Your task to perform on an android device: Go to display settings Image 0: 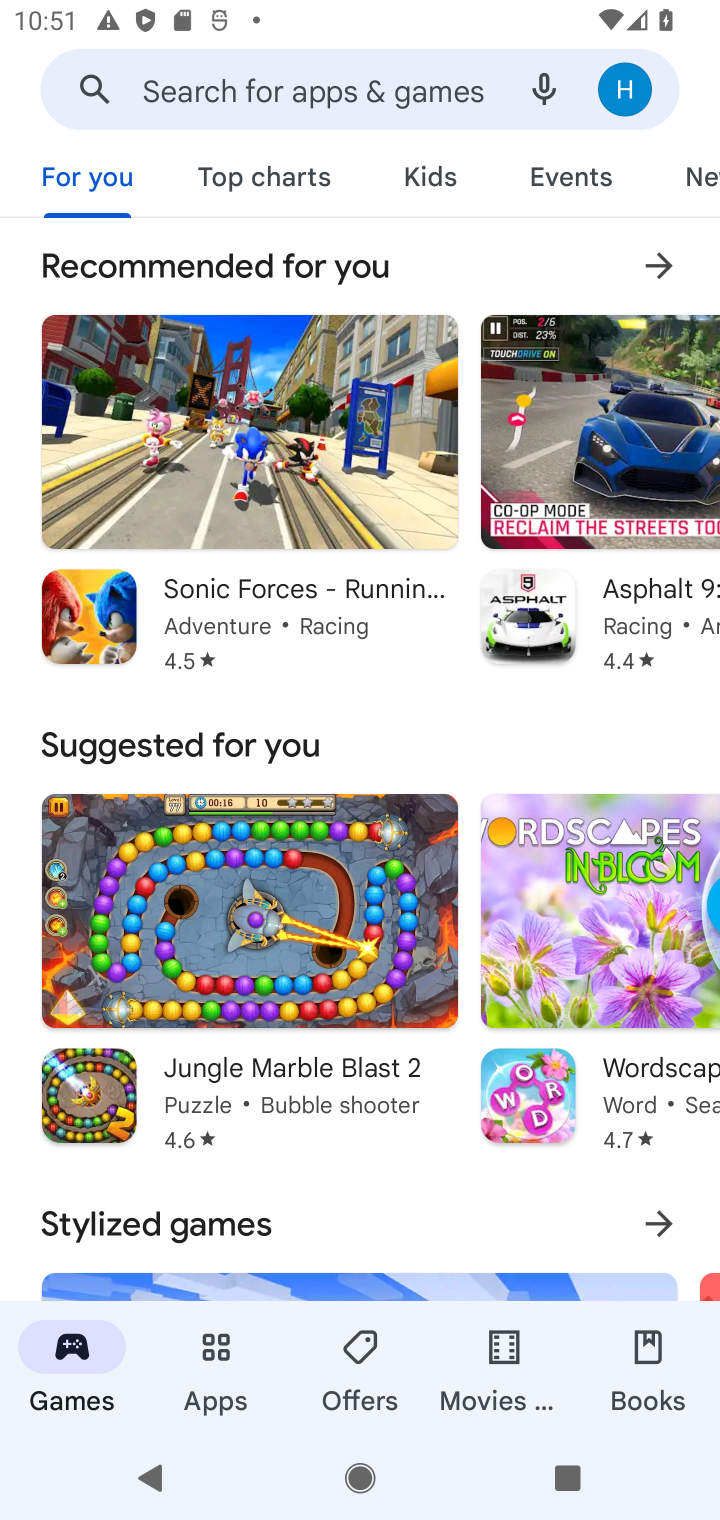
Step 0: press home button
Your task to perform on an android device: Go to display settings Image 1: 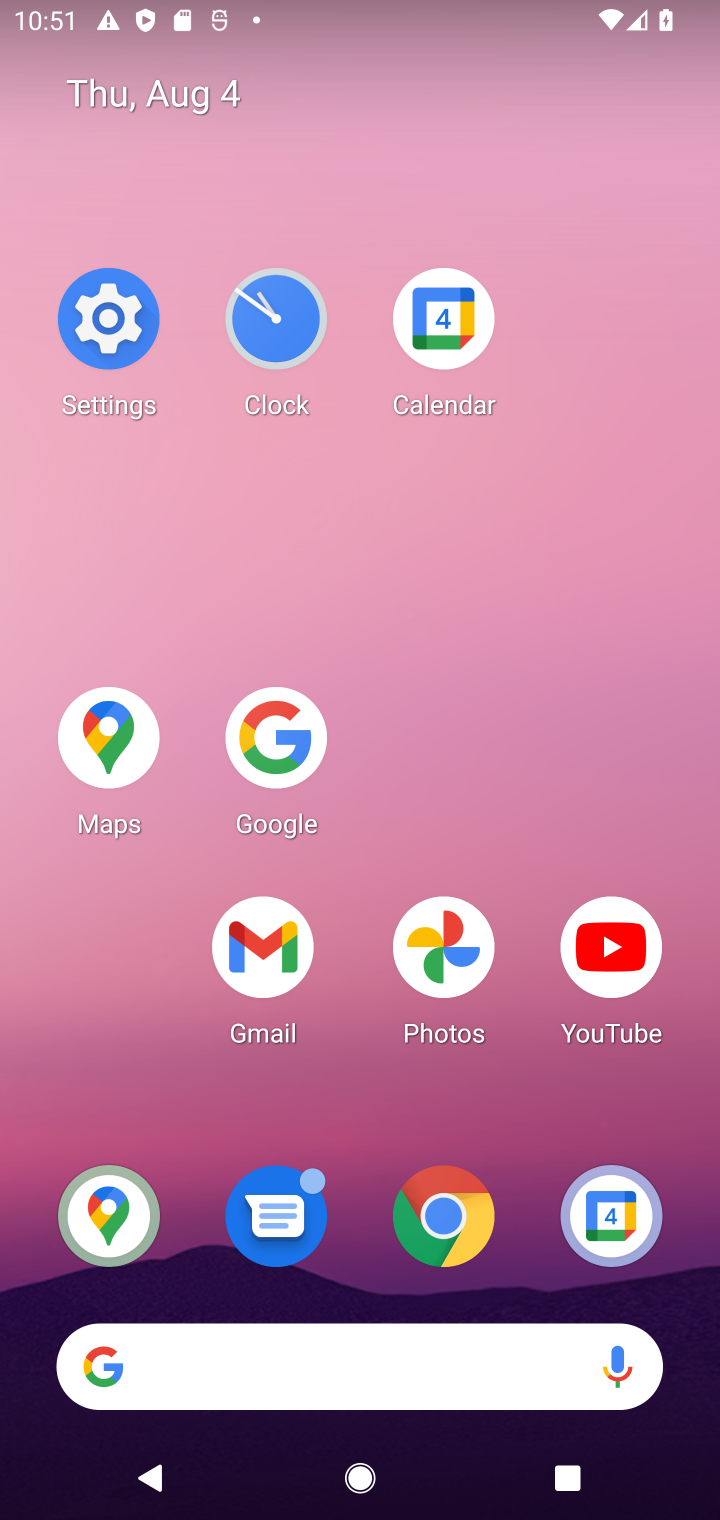
Step 1: click (99, 295)
Your task to perform on an android device: Go to display settings Image 2: 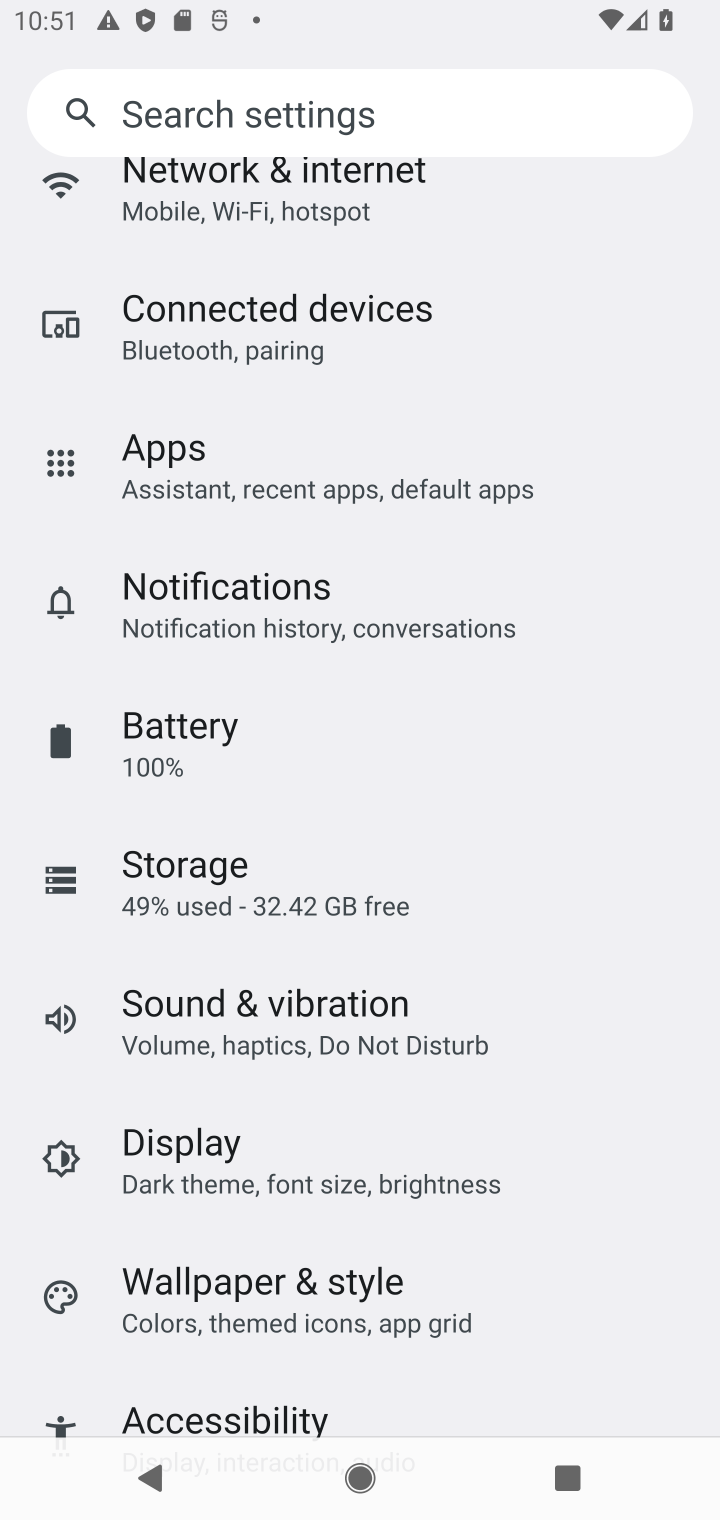
Step 2: click (282, 1146)
Your task to perform on an android device: Go to display settings Image 3: 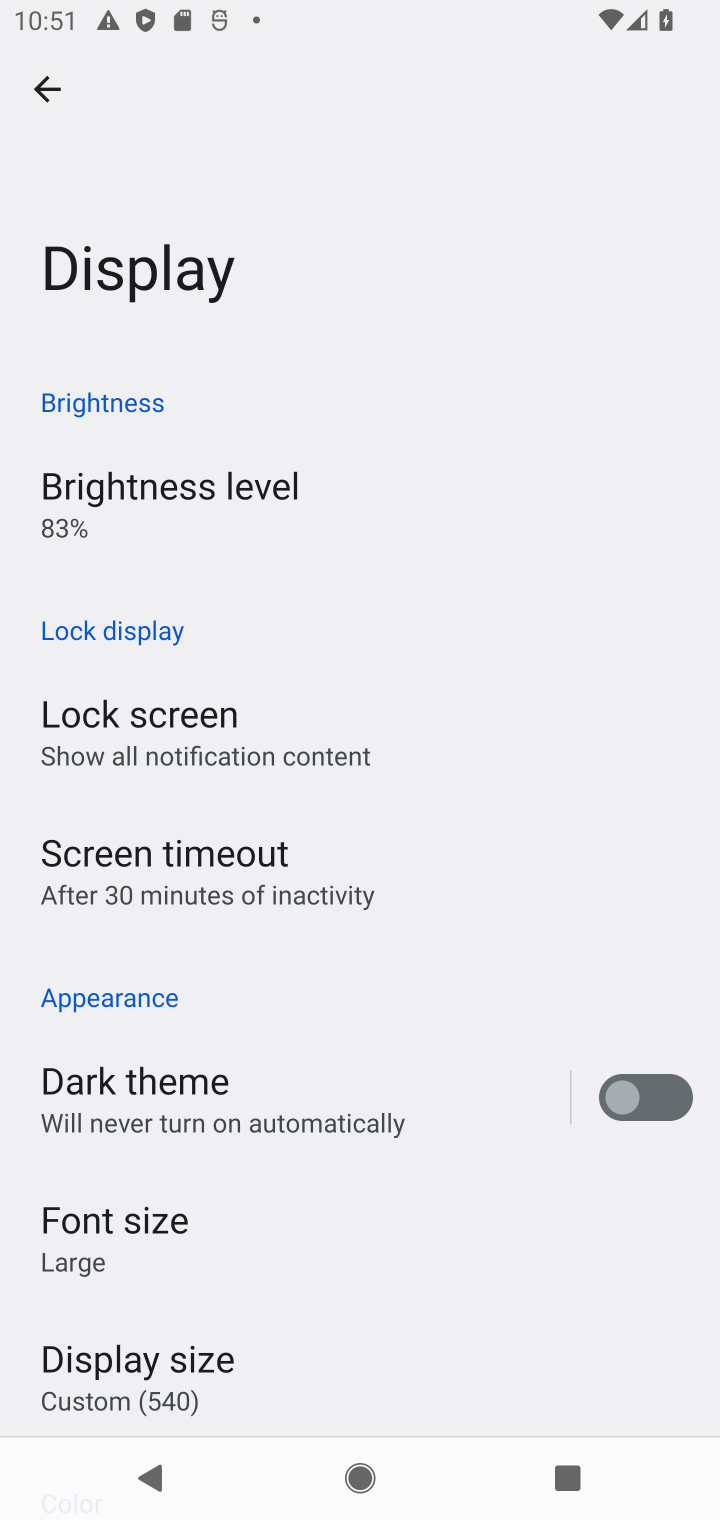
Step 3: task complete